Your task to perform on an android device: clear history in the chrome app Image 0: 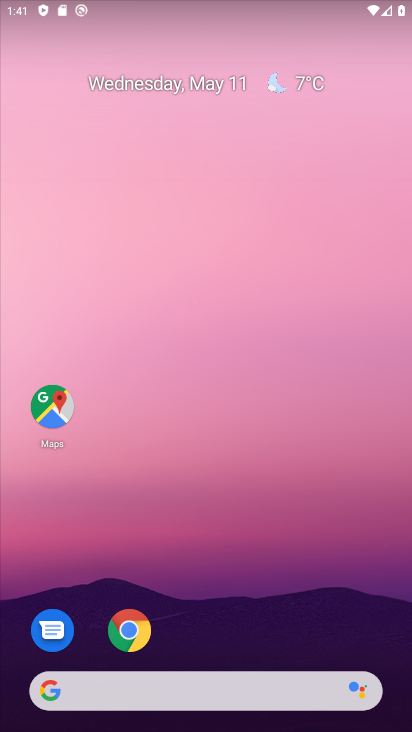
Step 0: drag from (337, 639) to (259, 74)
Your task to perform on an android device: clear history in the chrome app Image 1: 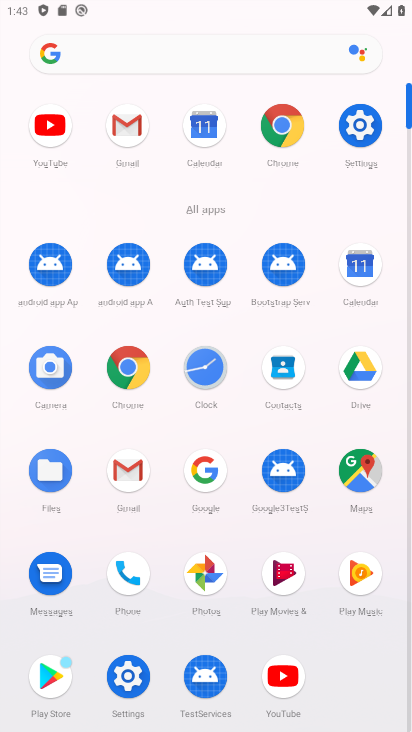
Step 1: click (126, 371)
Your task to perform on an android device: clear history in the chrome app Image 2: 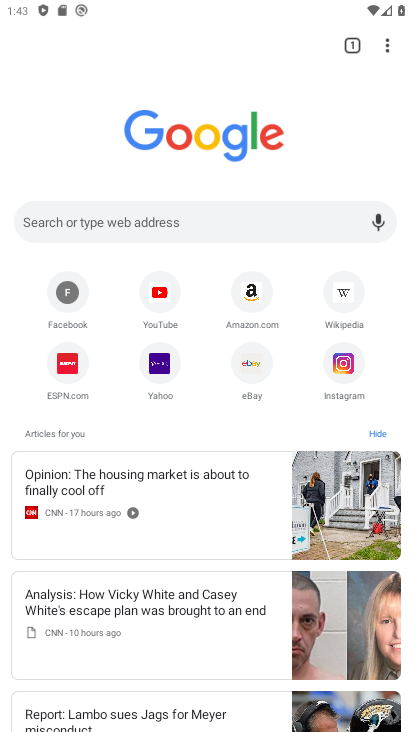
Step 2: click (384, 38)
Your task to perform on an android device: clear history in the chrome app Image 3: 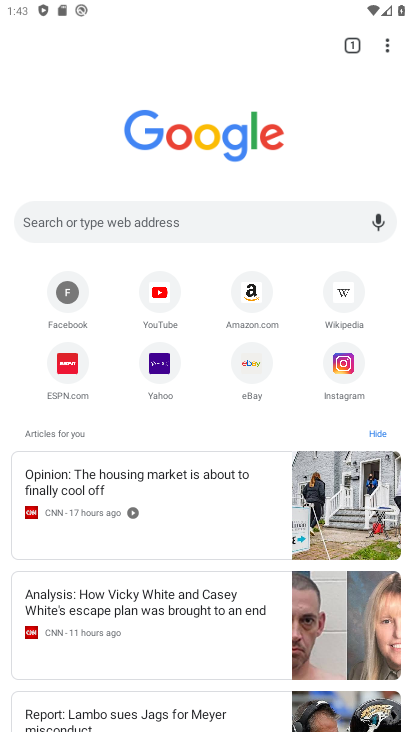
Step 3: click (389, 41)
Your task to perform on an android device: clear history in the chrome app Image 4: 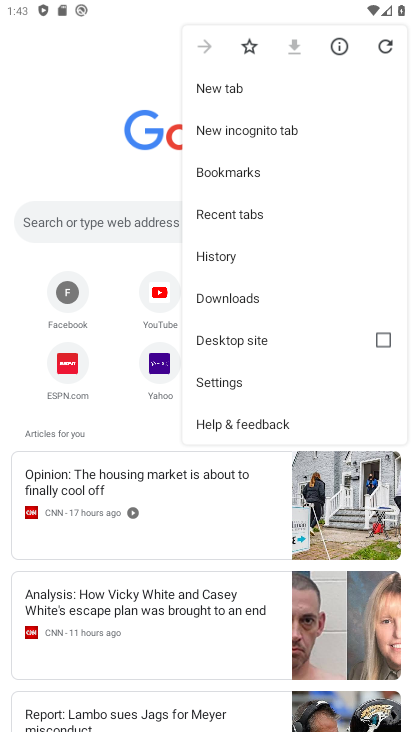
Step 4: click (259, 263)
Your task to perform on an android device: clear history in the chrome app Image 5: 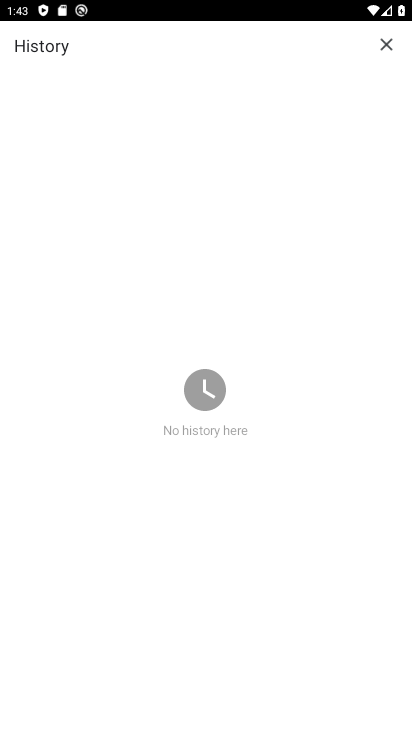
Step 5: task complete